Your task to perform on an android device: uninstall "Lyft - Rideshare, Bikes, Scooters & Transit" Image 0: 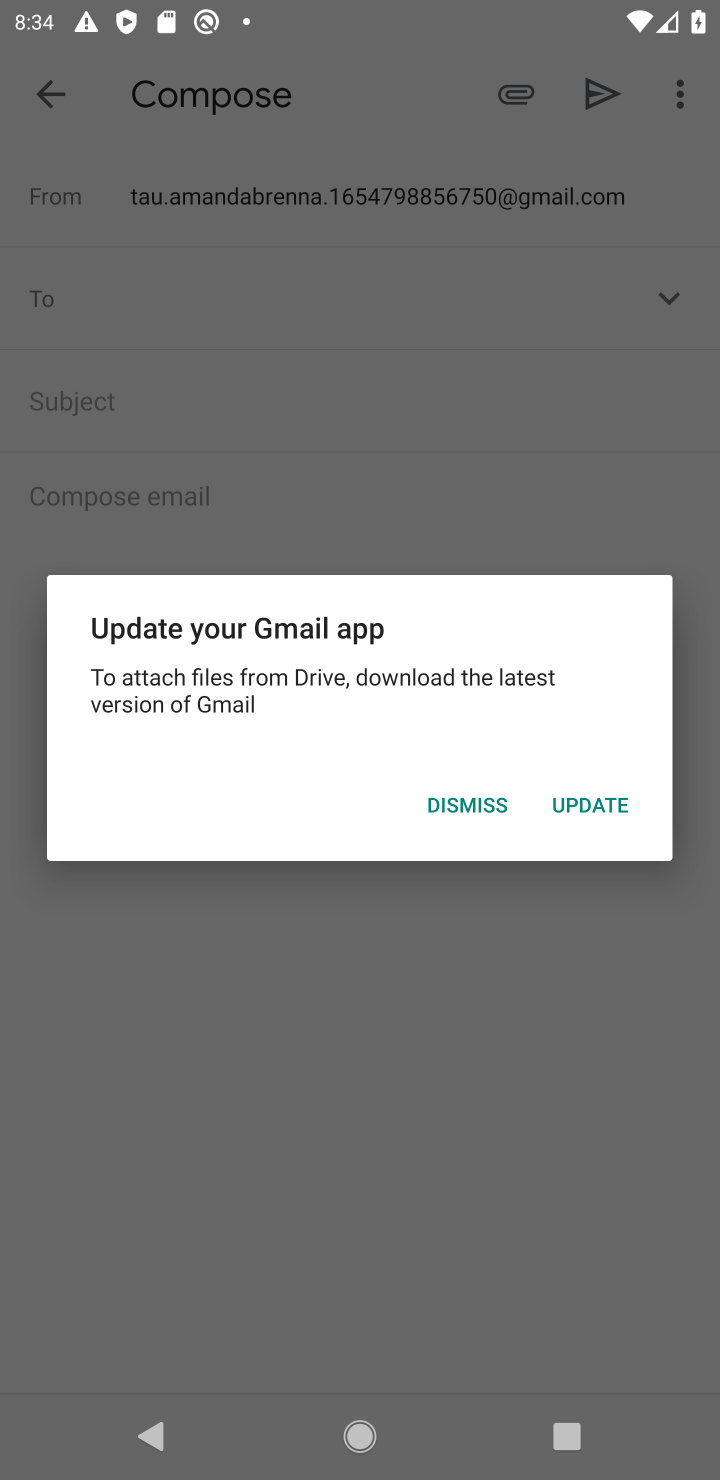
Step 0: press home button
Your task to perform on an android device: uninstall "Lyft - Rideshare, Bikes, Scooters & Transit" Image 1: 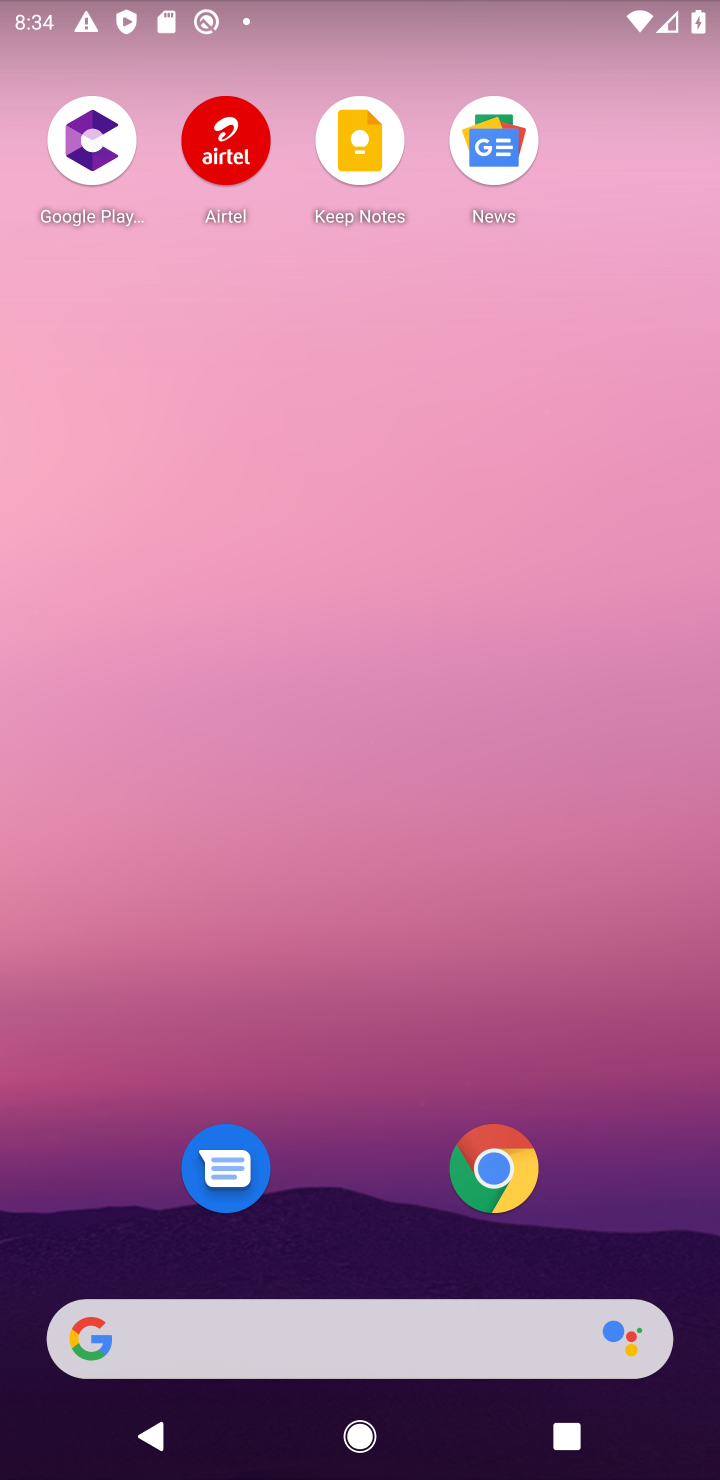
Step 1: drag from (263, 1242) to (257, 70)
Your task to perform on an android device: uninstall "Lyft - Rideshare, Bikes, Scooters & Transit" Image 2: 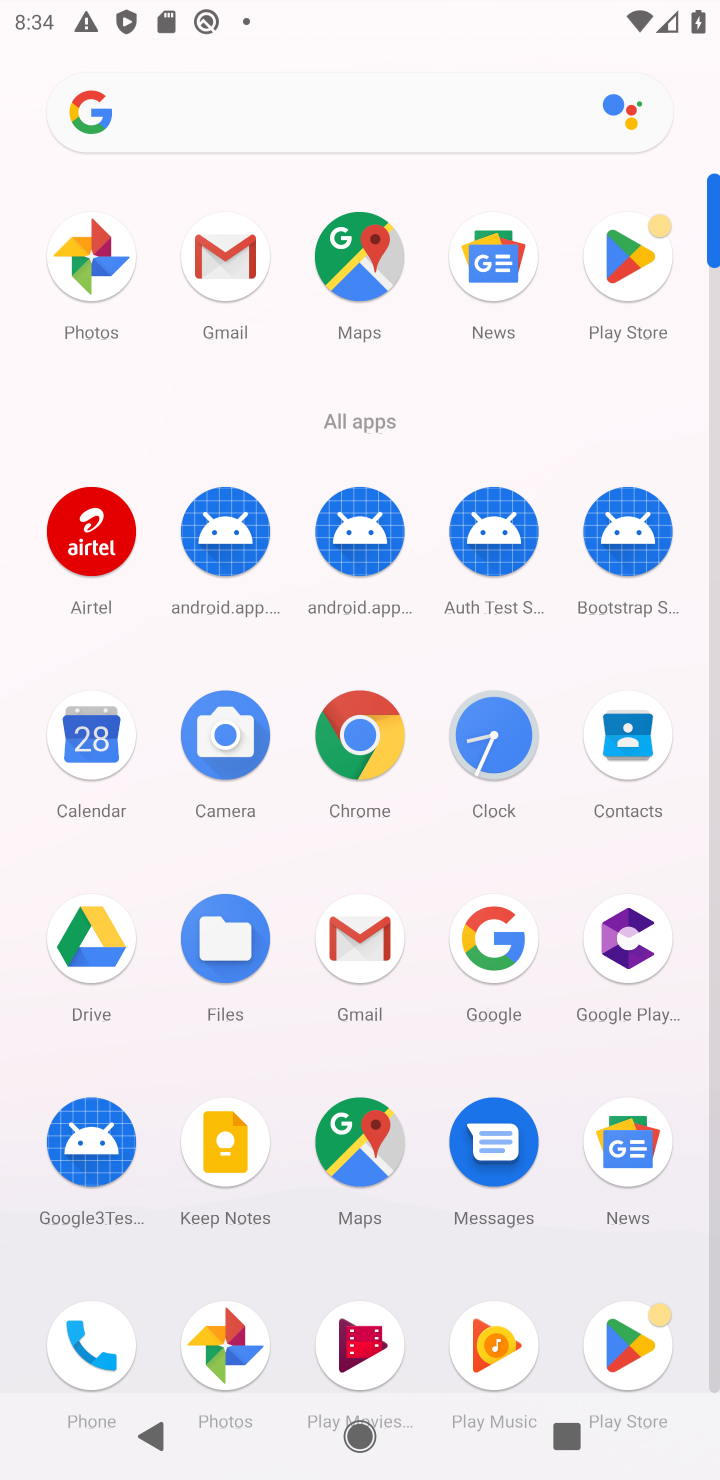
Step 2: click (645, 264)
Your task to perform on an android device: uninstall "Lyft - Rideshare, Bikes, Scooters & Transit" Image 3: 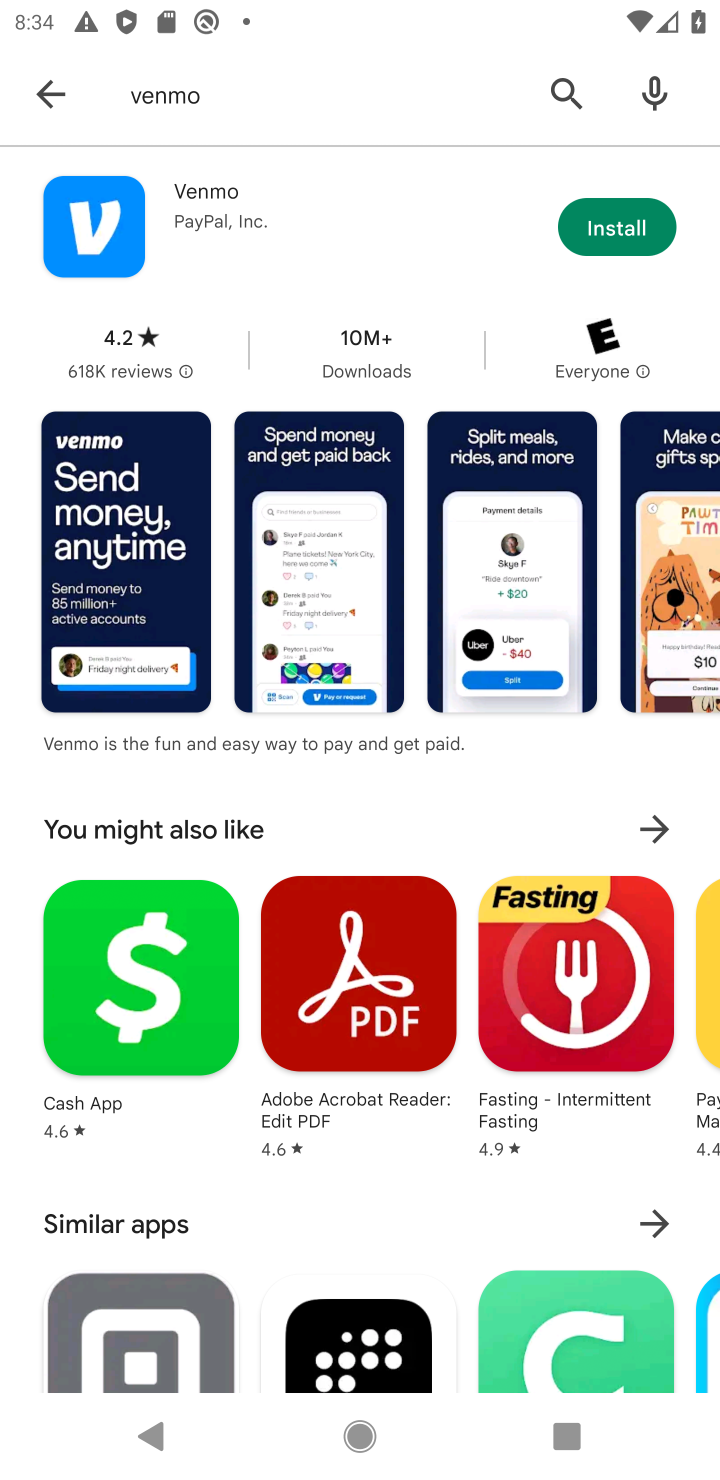
Step 3: click (556, 84)
Your task to perform on an android device: uninstall "Lyft - Rideshare, Bikes, Scooters & Transit" Image 4: 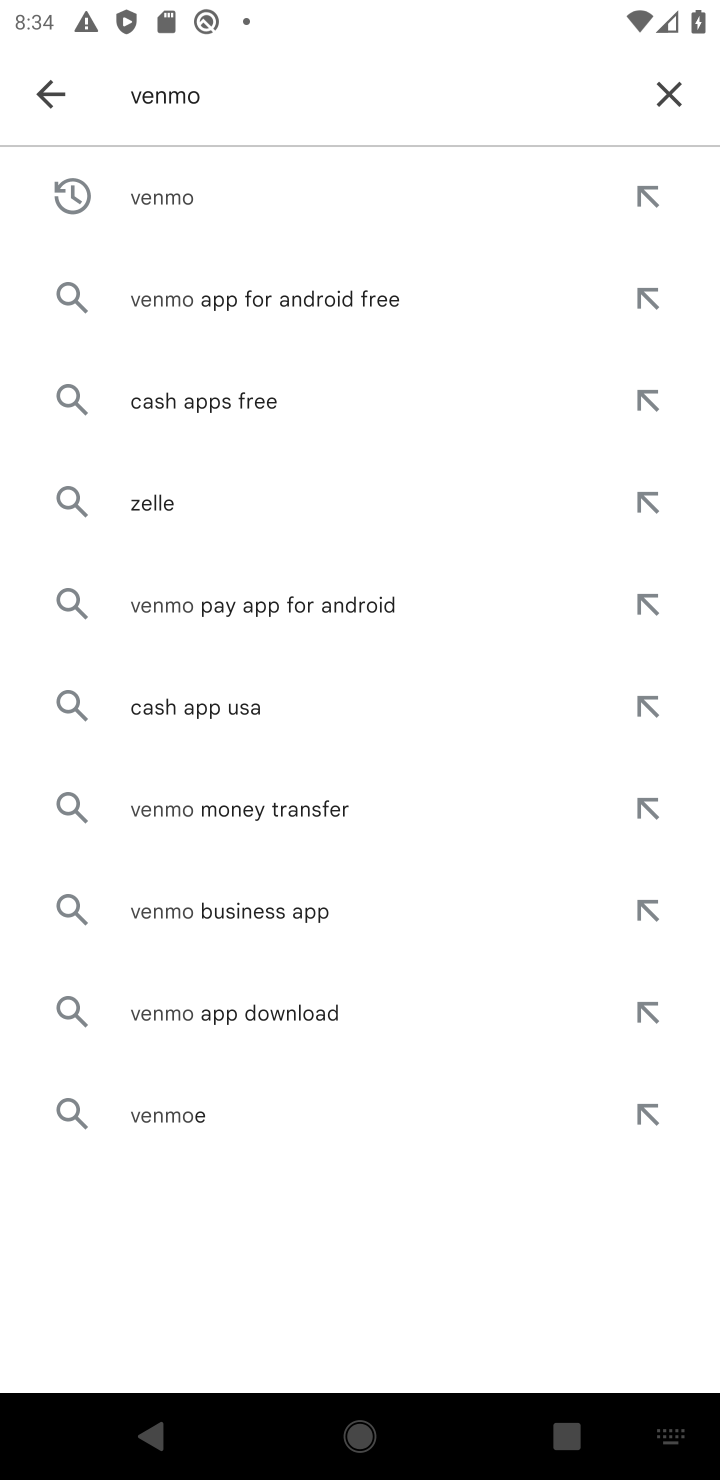
Step 4: click (655, 95)
Your task to perform on an android device: uninstall "Lyft - Rideshare, Bikes, Scooters & Transit" Image 5: 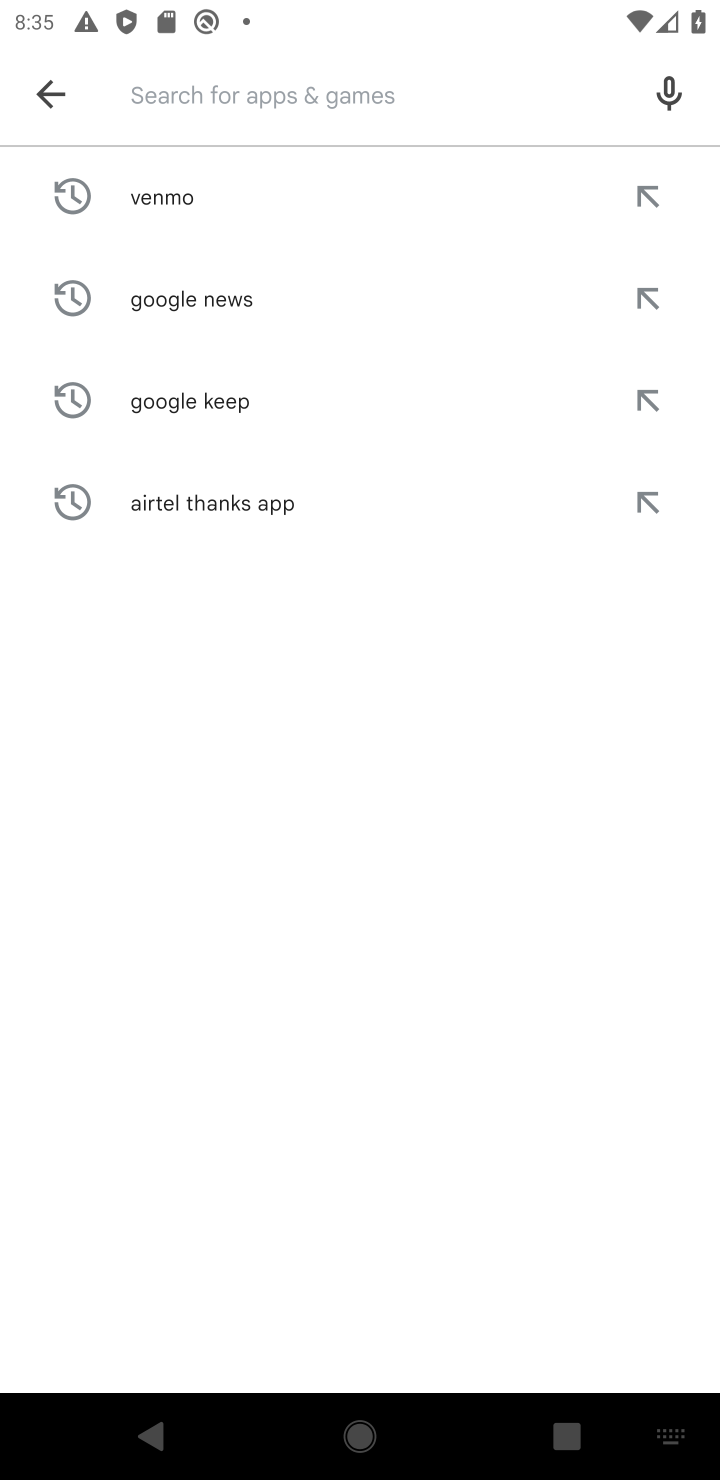
Step 5: type "lyft - rideshare, bikes, scooters & transit"
Your task to perform on an android device: uninstall "Lyft - Rideshare, Bikes, Scooters & Transit" Image 6: 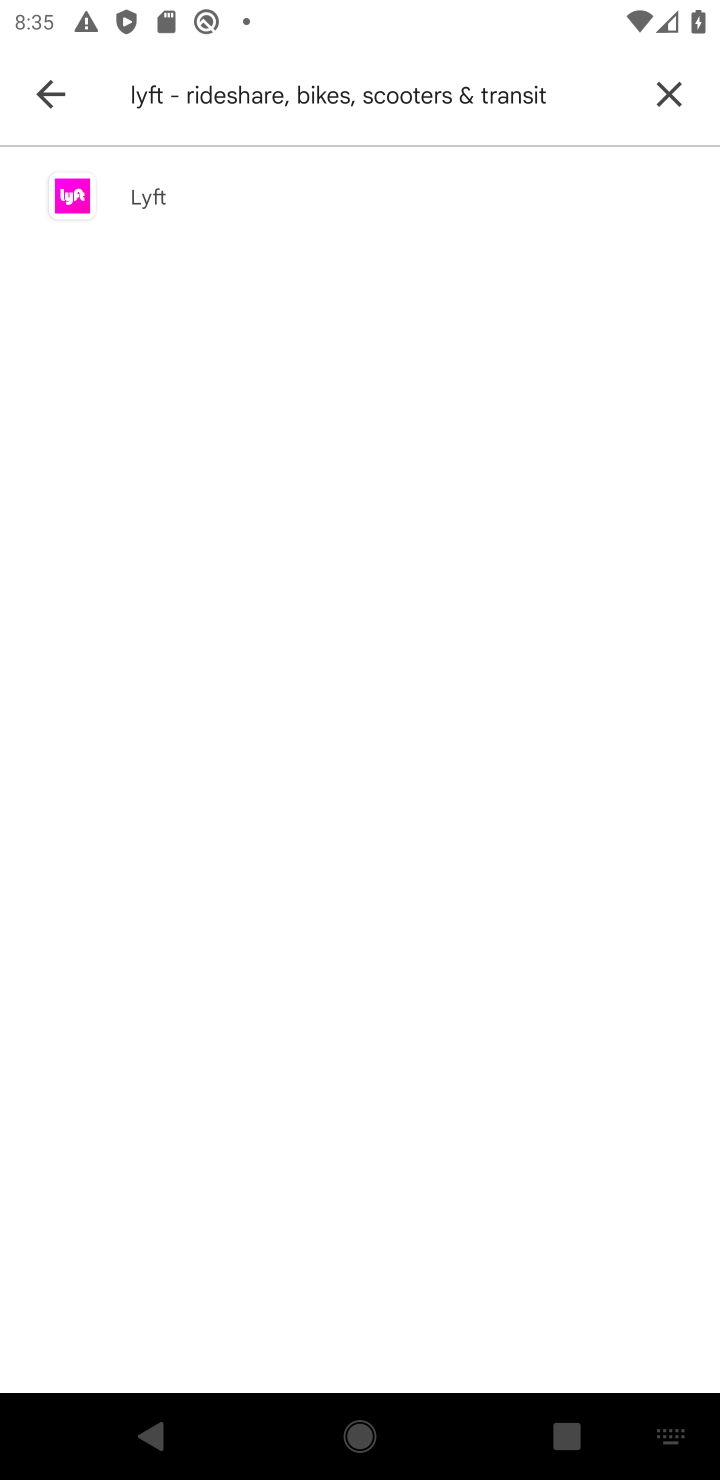
Step 6: click (181, 201)
Your task to perform on an android device: uninstall "Lyft - Rideshare, Bikes, Scooters & Transit" Image 7: 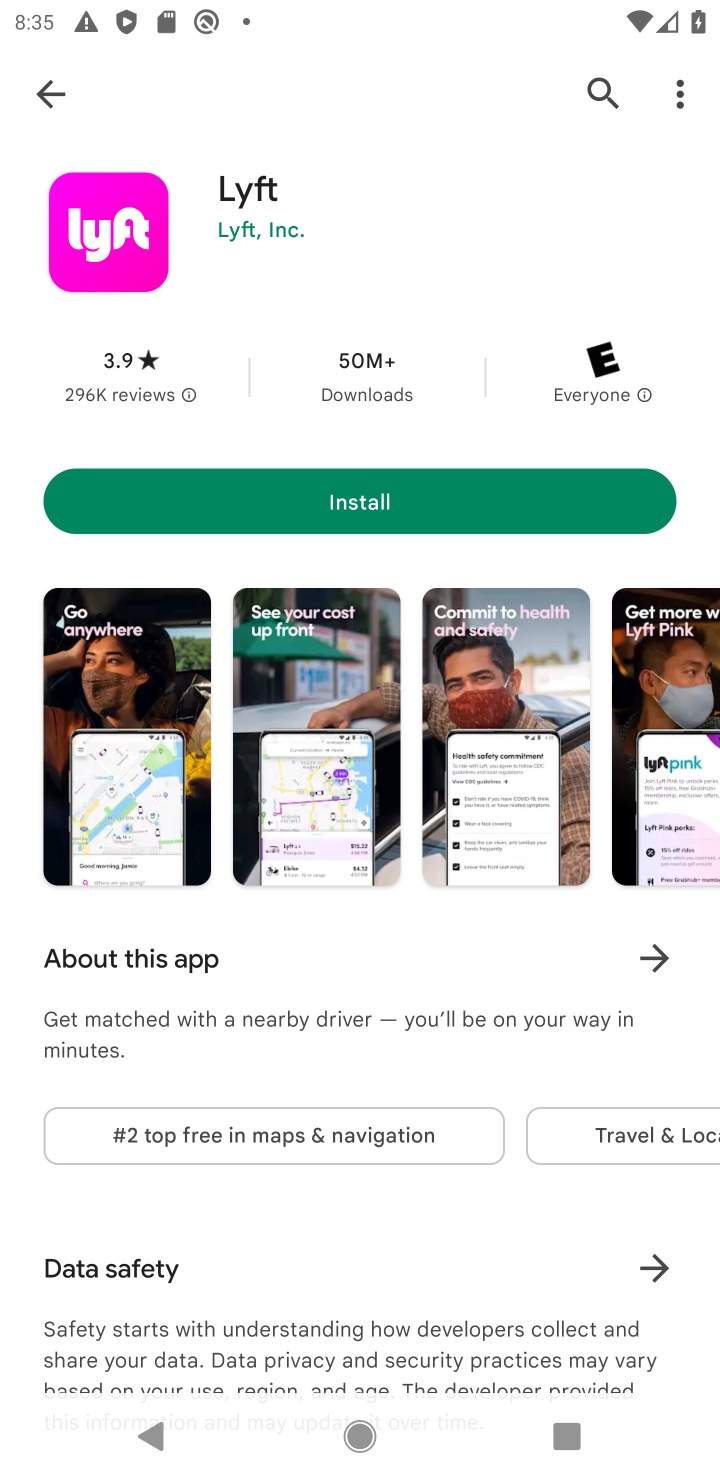
Step 7: click (313, 507)
Your task to perform on an android device: uninstall "Lyft - Rideshare, Bikes, Scooters & Transit" Image 8: 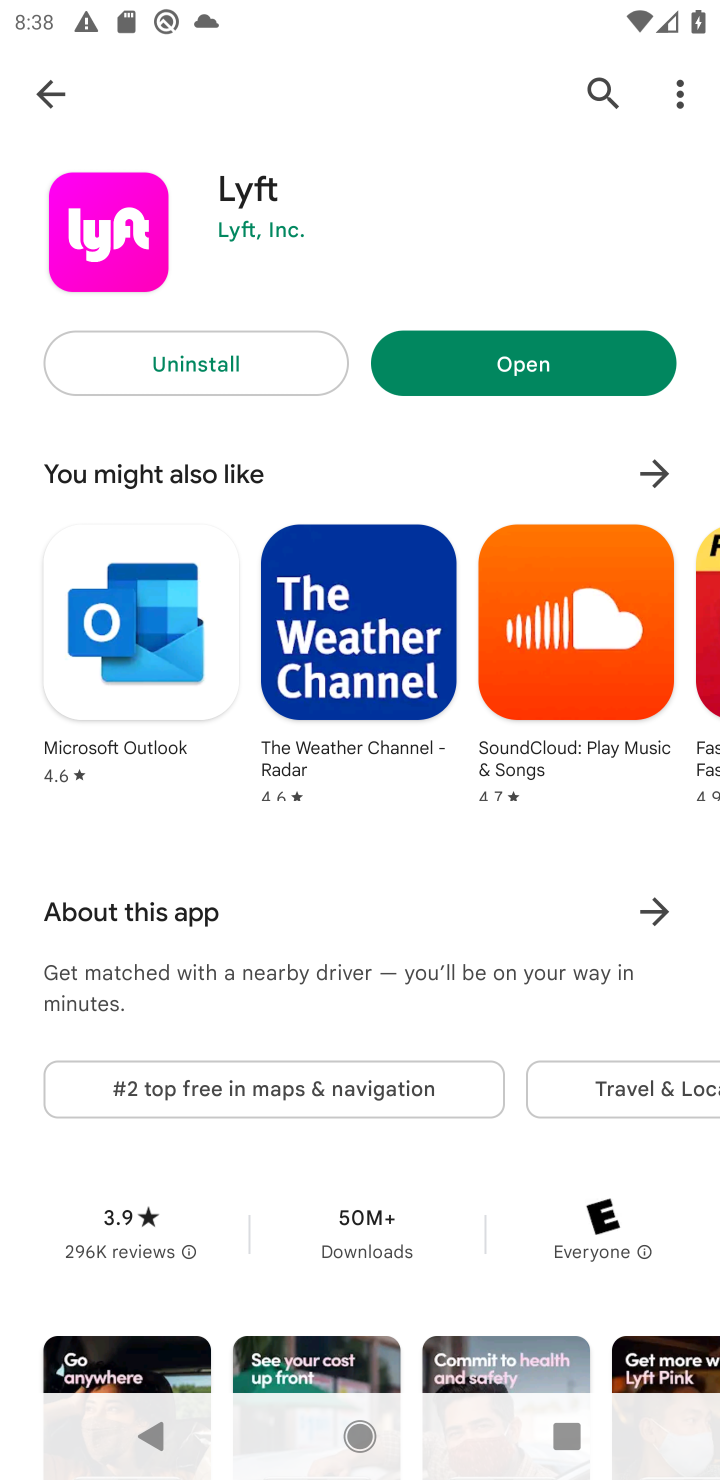
Step 8: task complete